Your task to perform on an android device: allow cookies in the chrome app Image 0: 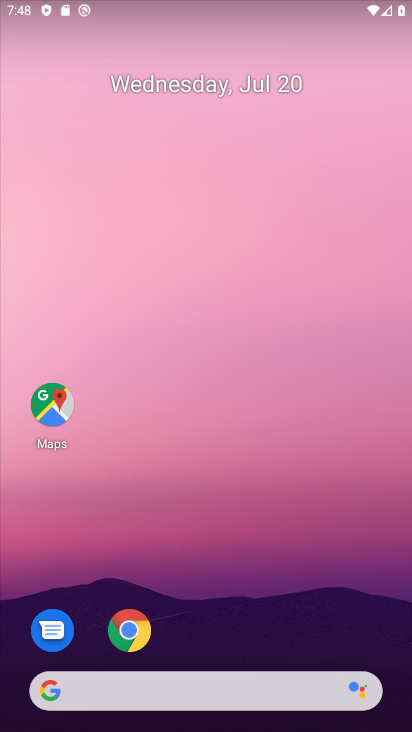
Step 0: click (116, 628)
Your task to perform on an android device: allow cookies in the chrome app Image 1: 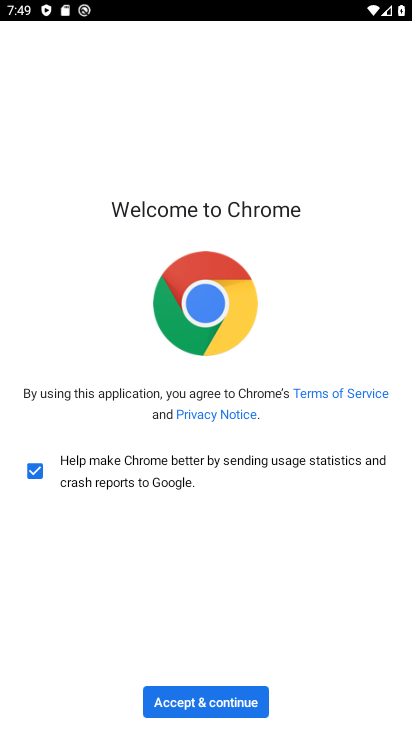
Step 1: click (189, 708)
Your task to perform on an android device: allow cookies in the chrome app Image 2: 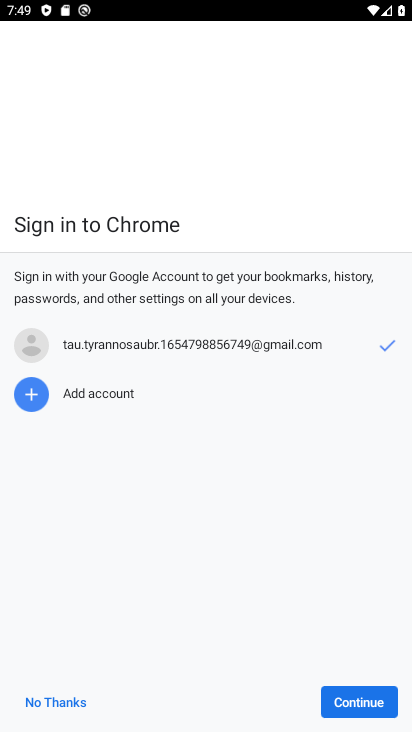
Step 2: click (358, 700)
Your task to perform on an android device: allow cookies in the chrome app Image 3: 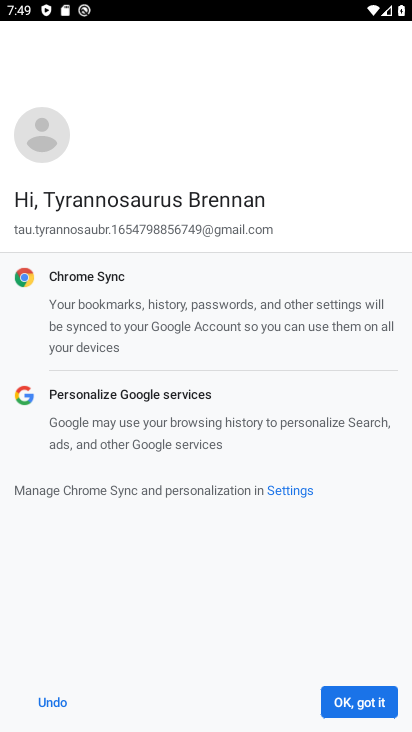
Step 3: click (358, 700)
Your task to perform on an android device: allow cookies in the chrome app Image 4: 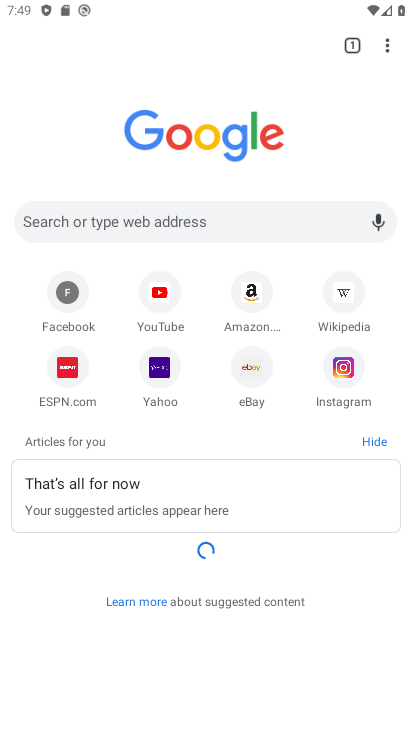
Step 4: click (388, 50)
Your task to perform on an android device: allow cookies in the chrome app Image 5: 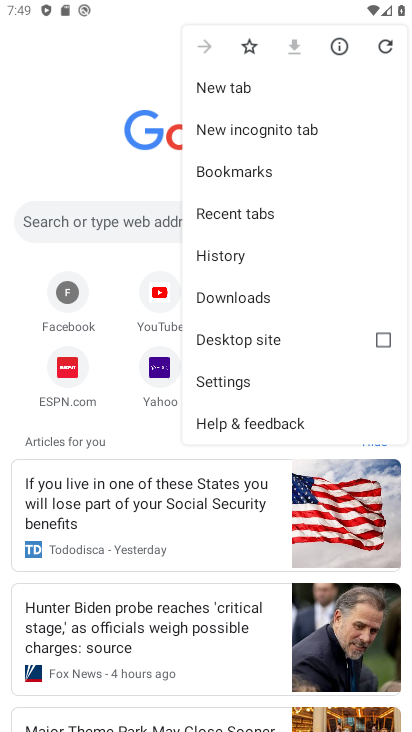
Step 5: click (217, 376)
Your task to perform on an android device: allow cookies in the chrome app Image 6: 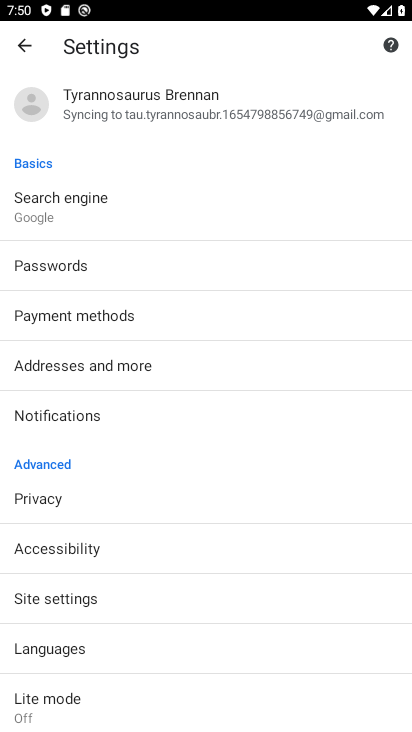
Step 6: drag from (352, 695) to (309, 179)
Your task to perform on an android device: allow cookies in the chrome app Image 7: 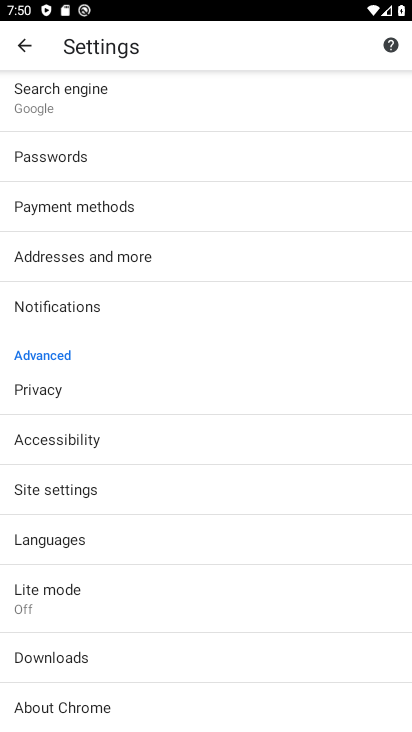
Step 7: drag from (248, 131) to (344, 570)
Your task to perform on an android device: allow cookies in the chrome app Image 8: 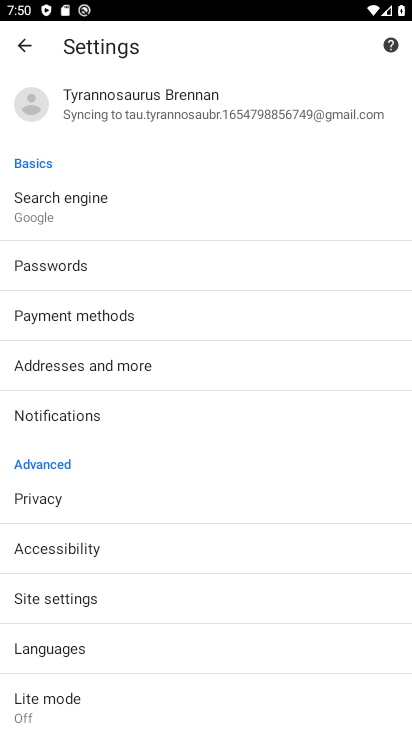
Step 8: click (79, 603)
Your task to perform on an android device: allow cookies in the chrome app Image 9: 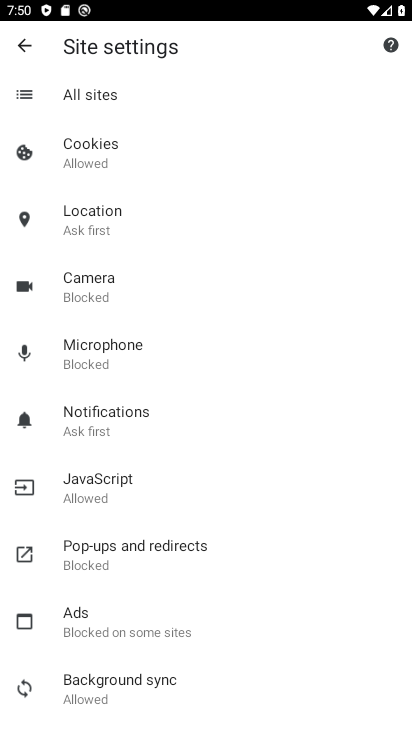
Step 9: click (110, 154)
Your task to perform on an android device: allow cookies in the chrome app Image 10: 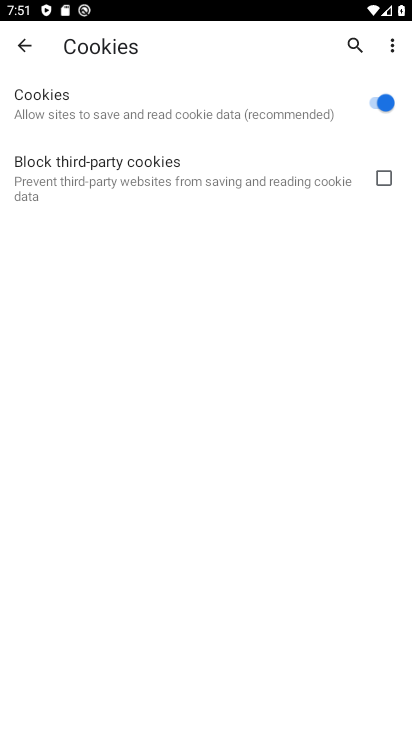
Step 10: task complete